Your task to perform on an android device: turn notification dots on Image 0: 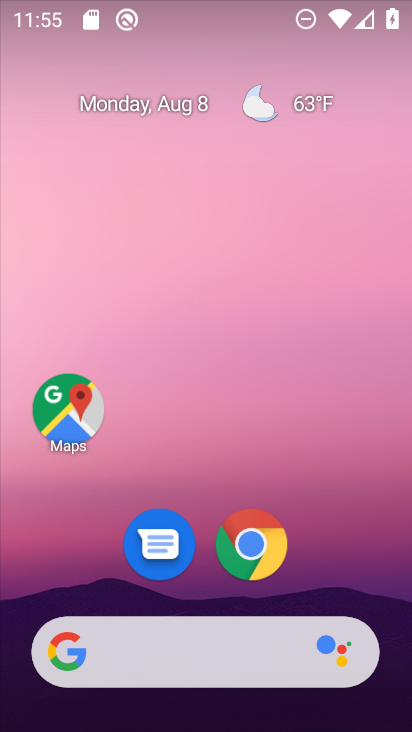
Step 0: drag from (191, 663) to (200, 172)
Your task to perform on an android device: turn notification dots on Image 1: 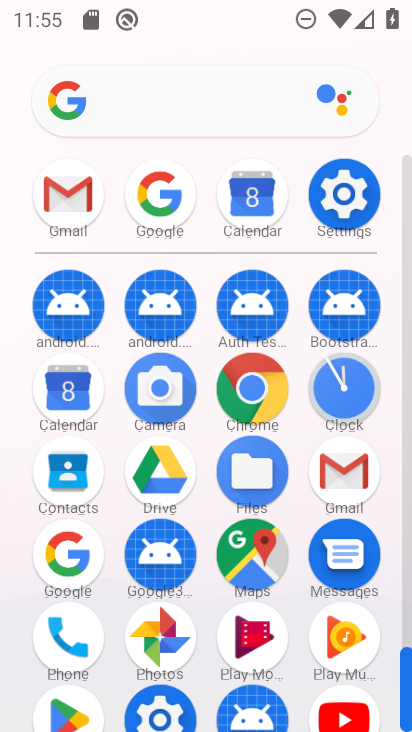
Step 1: click (342, 197)
Your task to perform on an android device: turn notification dots on Image 2: 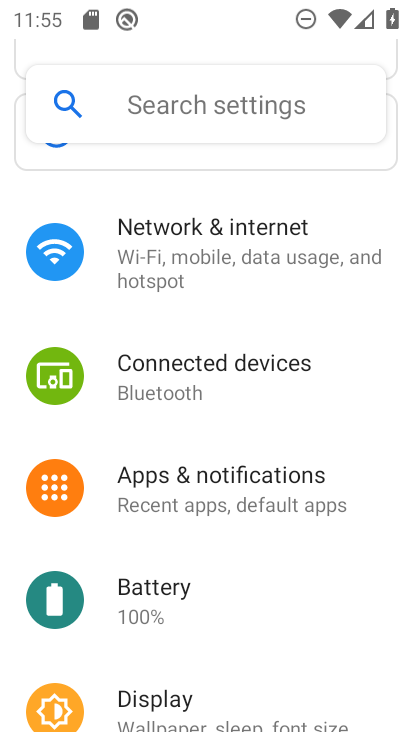
Step 2: click (196, 493)
Your task to perform on an android device: turn notification dots on Image 3: 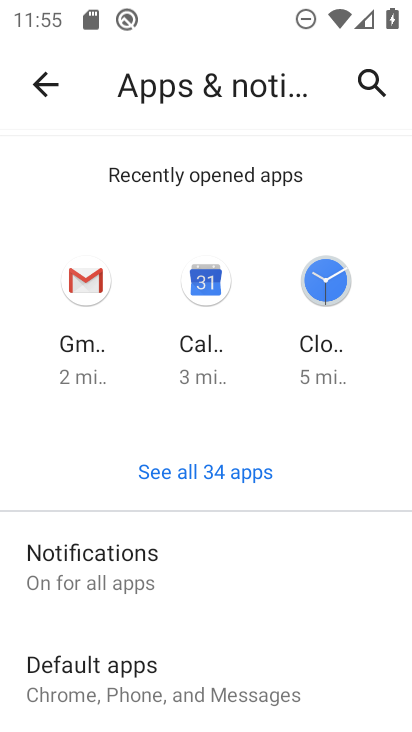
Step 3: click (95, 578)
Your task to perform on an android device: turn notification dots on Image 4: 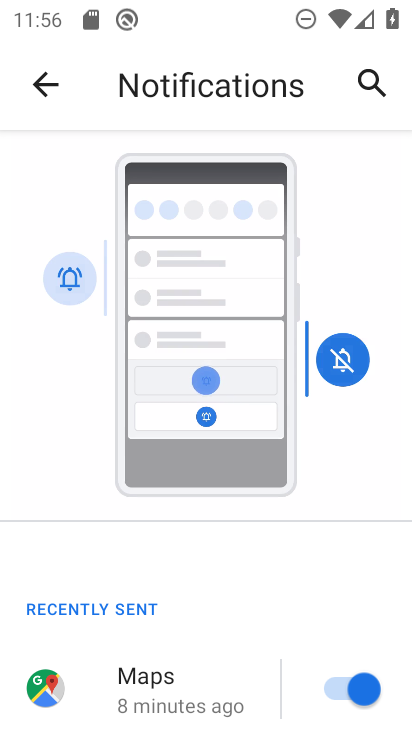
Step 4: drag from (232, 484) to (253, 418)
Your task to perform on an android device: turn notification dots on Image 5: 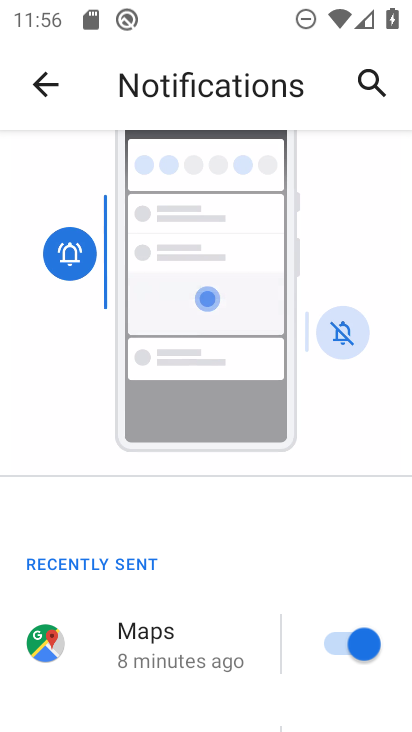
Step 5: drag from (222, 614) to (255, 409)
Your task to perform on an android device: turn notification dots on Image 6: 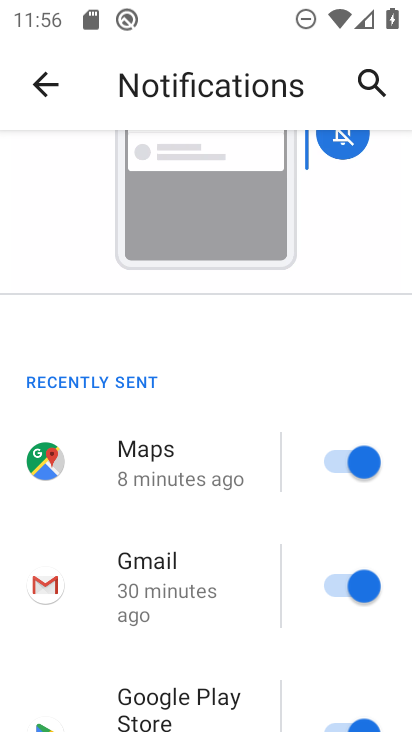
Step 6: drag from (192, 637) to (245, 442)
Your task to perform on an android device: turn notification dots on Image 7: 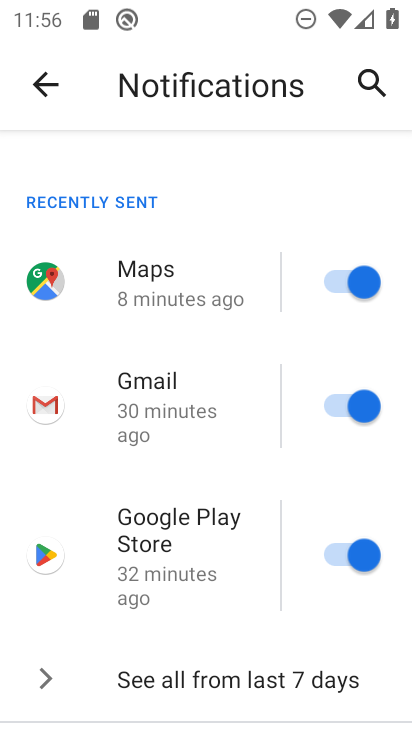
Step 7: drag from (223, 644) to (267, 469)
Your task to perform on an android device: turn notification dots on Image 8: 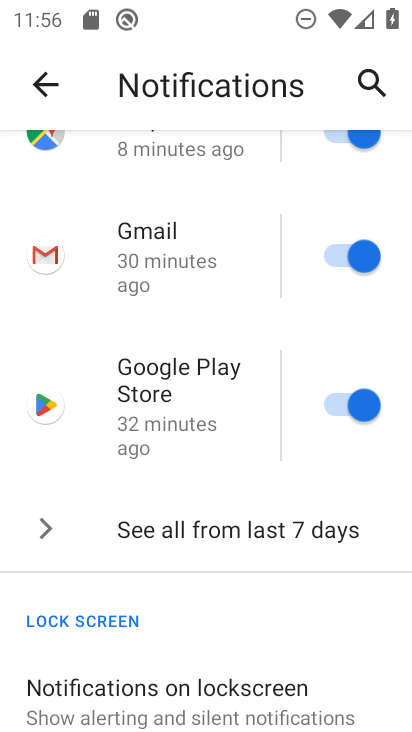
Step 8: drag from (219, 636) to (296, 519)
Your task to perform on an android device: turn notification dots on Image 9: 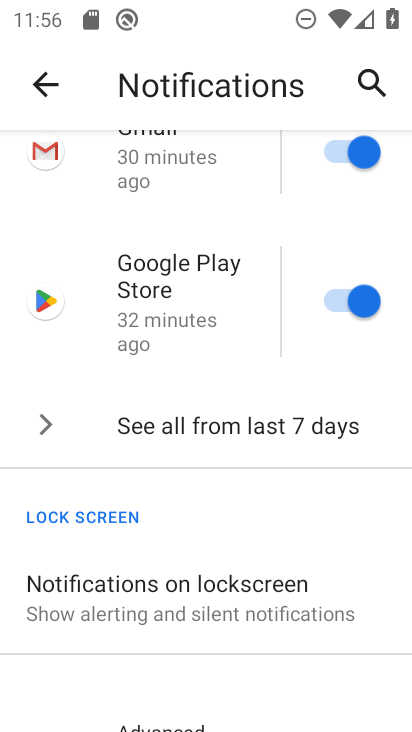
Step 9: drag from (251, 656) to (314, 523)
Your task to perform on an android device: turn notification dots on Image 10: 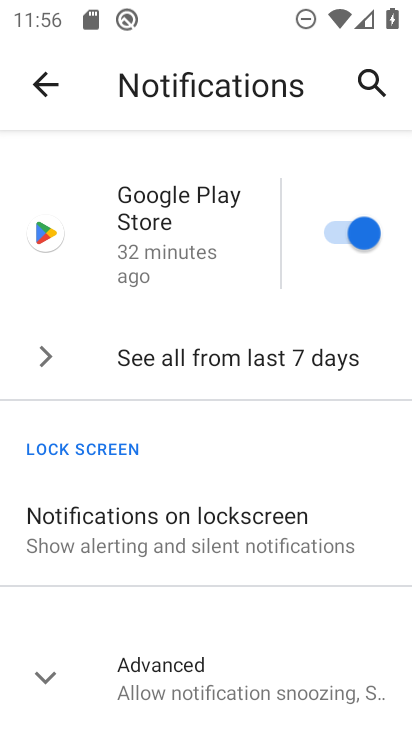
Step 10: click (244, 686)
Your task to perform on an android device: turn notification dots on Image 11: 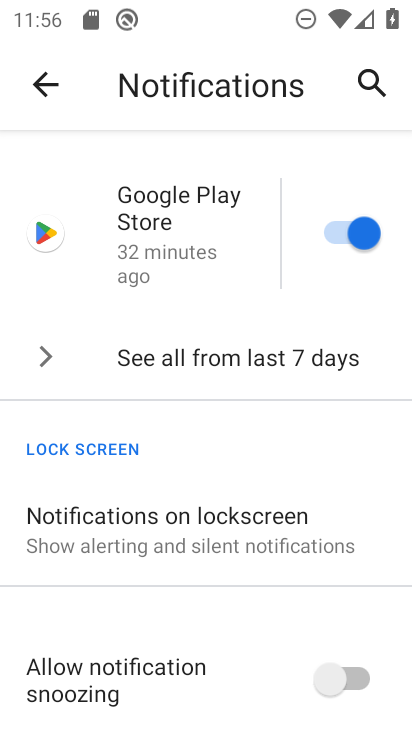
Step 11: task complete